Your task to perform on an android device: Turn off the flashlight Image 0: 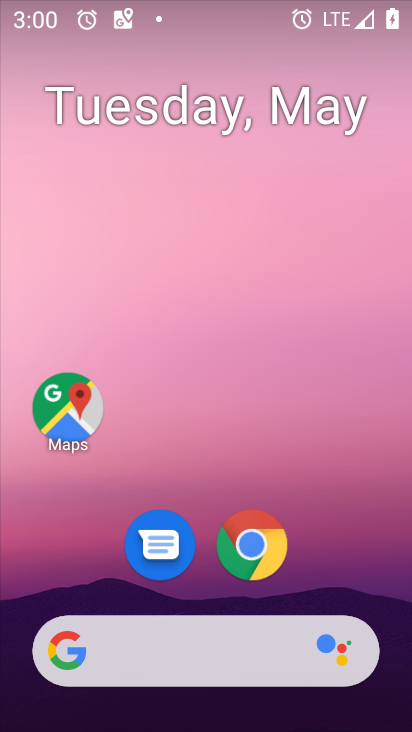
Step 0: drag from (350, 441) to (271, 8)
Your task to perform on an android device: Turn off the flashlight Image 1: 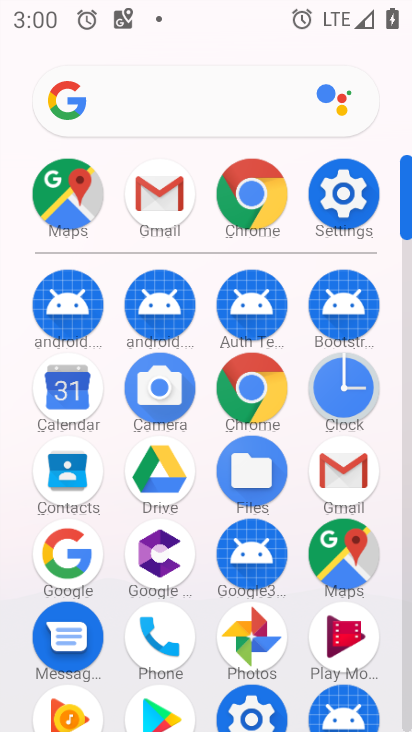
Step 1: drag from (14, 549) to (18, 199)
Your task to perform on an android device: Turn off the flashlight Image 2: 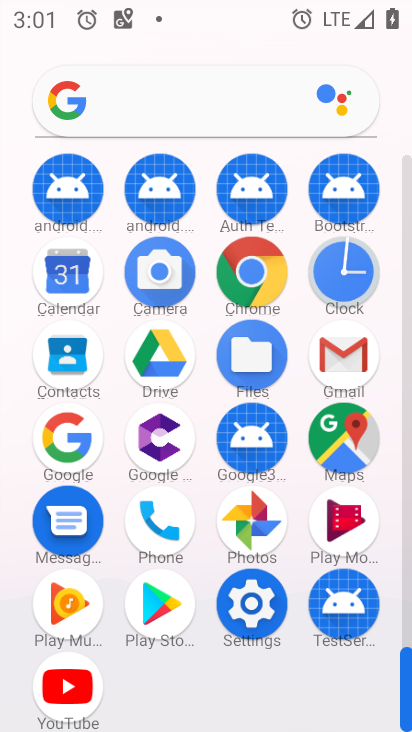
Step 2: click (252, 600)
Your task to perform on an android device: Turn off the flashlight Image 3: 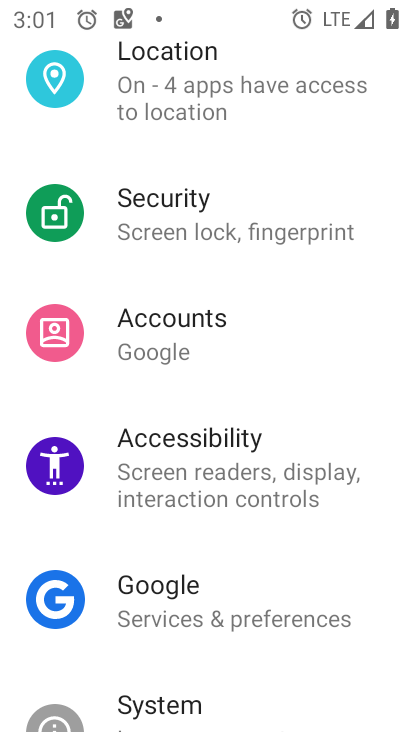
Step 3: drag from (264, 160) to (237, 584)
Your task to perform on an android device: Turn off the flashlight Image 4: 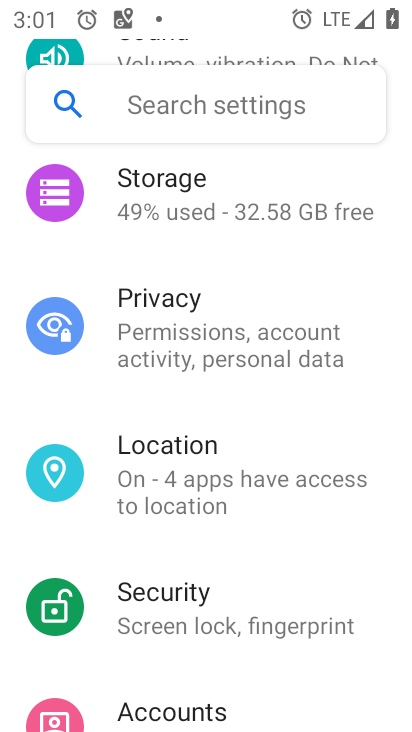
Step 4: drag from (259, 267) to (249, 647)
Your task to perform on an android device: Turn off the flashlight Image 5: 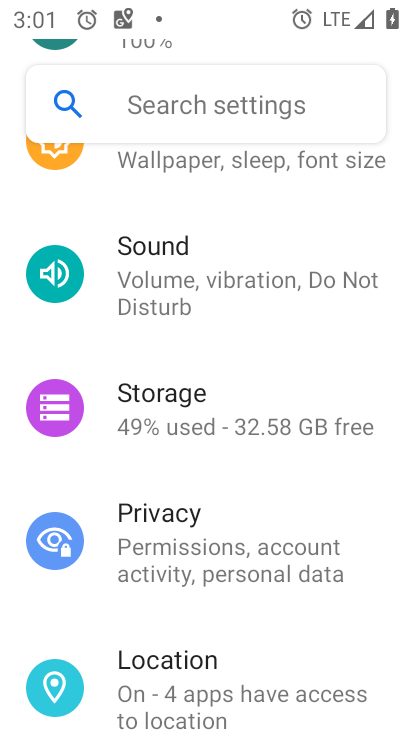
Step 5: drag from (297, 341) to (274, 648)
Your task to perform on an android device: Turn off the flashlight Image 6: 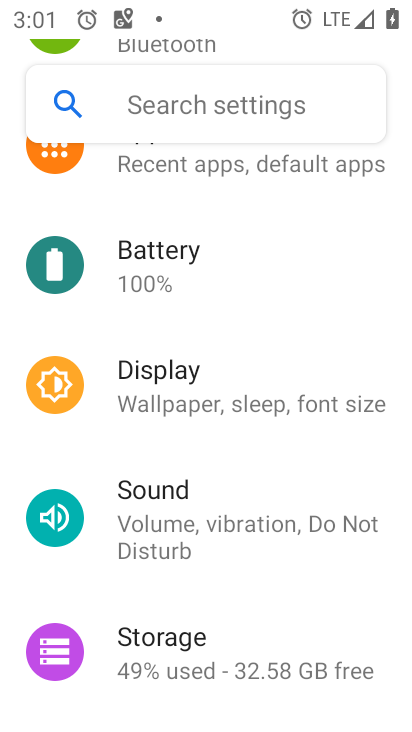
Step 6: drag from (300, 301) to (292, 649)
Your task to perform on an android device: Turn off the flashlight Image 7: 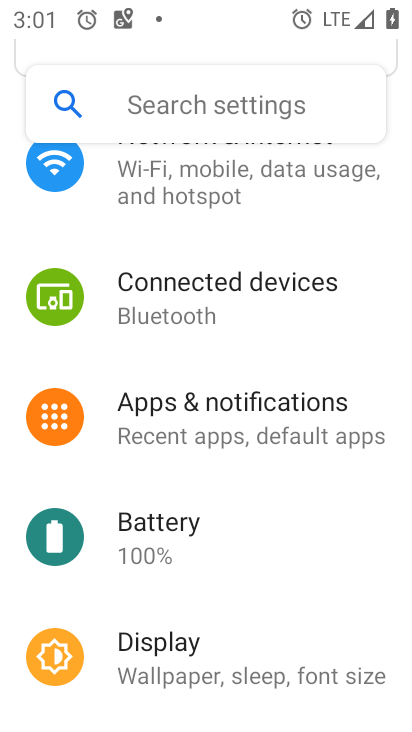
Step 7: drag from (286, 279) to (273, 651)
Your task to perform on an android device: Turn off the flashlight Image 8: 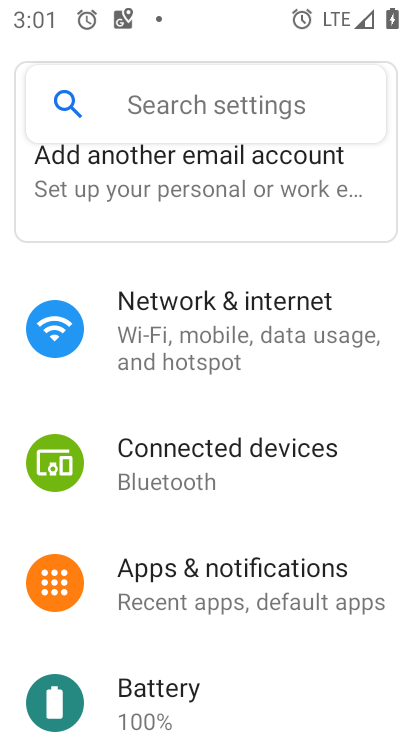
Step 8: click (261, 332)
Your task to perform on an android device: Turn off the flashlight Image 9: 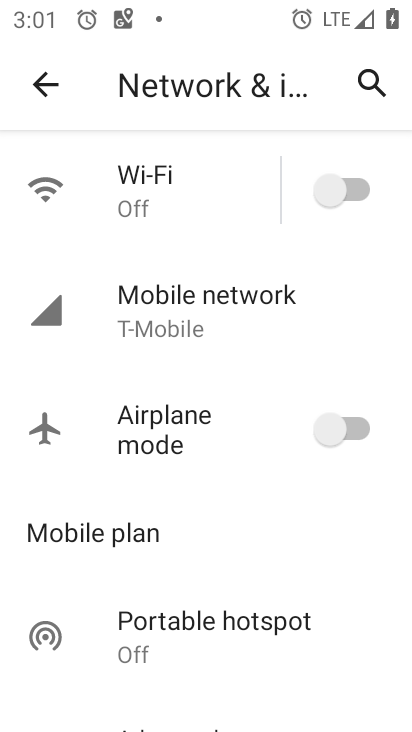
Step 9: drag from (203, 579) to (207, 237)
Your task to perform on an android device: Turn off the flashlight Image 10: 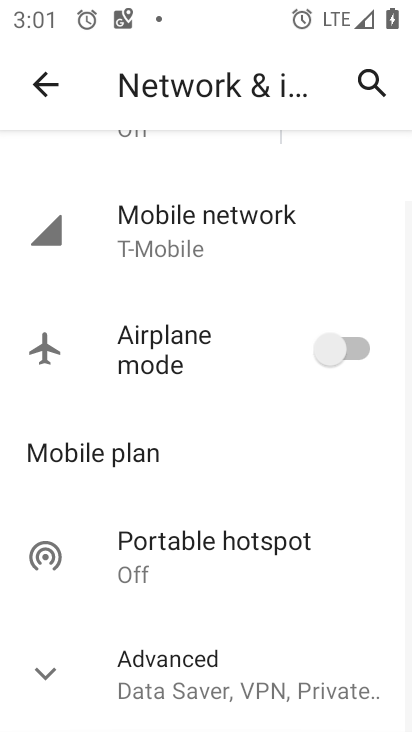
Step 10: drag from (208, 187) to (178, 558)
Your task to perform on an android device: Turn off the flashlight Image 11: 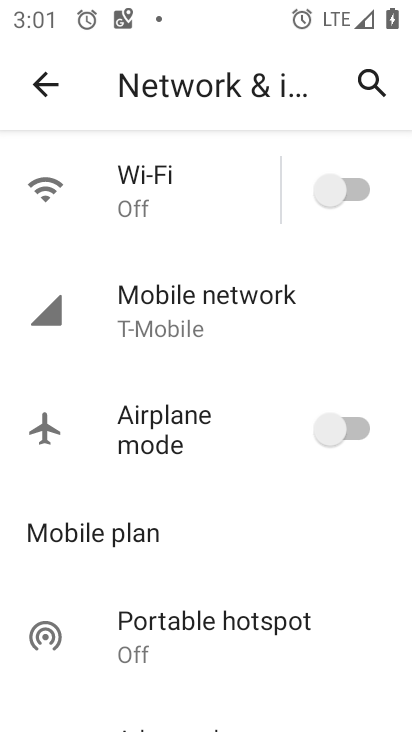
Step 11: drag from (152, 570) to (175, 146)
Your task to perform on an android device: Turn off the flashlight Image 12: 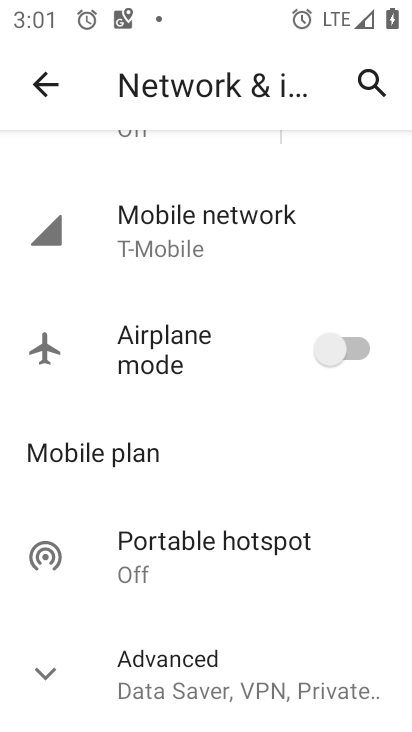
Step 12: click (47, 668)
Your task to perform on an android device: Turn off the flashlight Image 13: 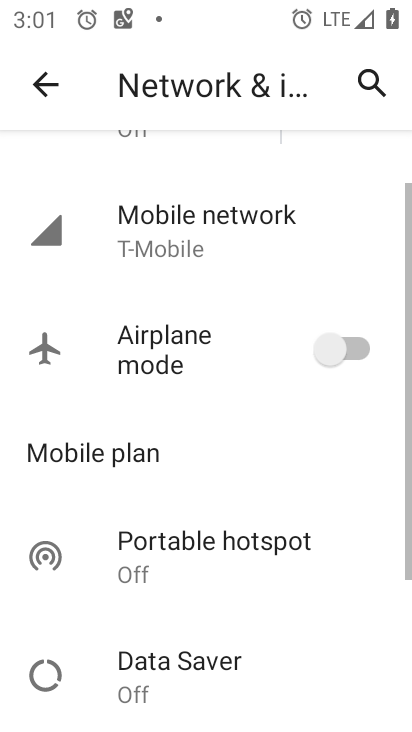
Step 13: task complete